Your task to perform on an android device: Go to Google maps Image 0: 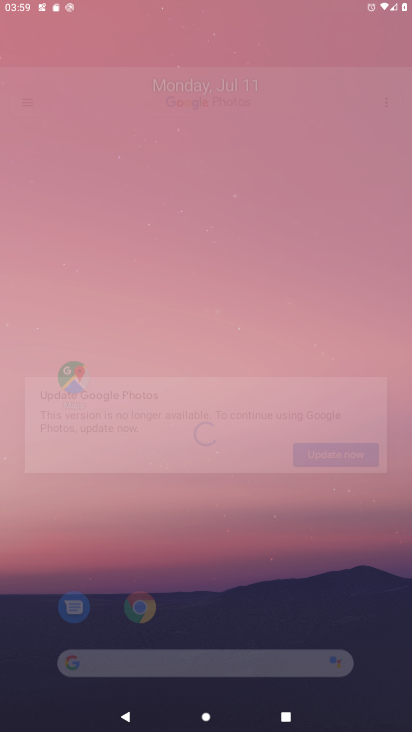
Step 0: click (341, 51)
Your task to perform on an android device: Go to Google maps Image 1: 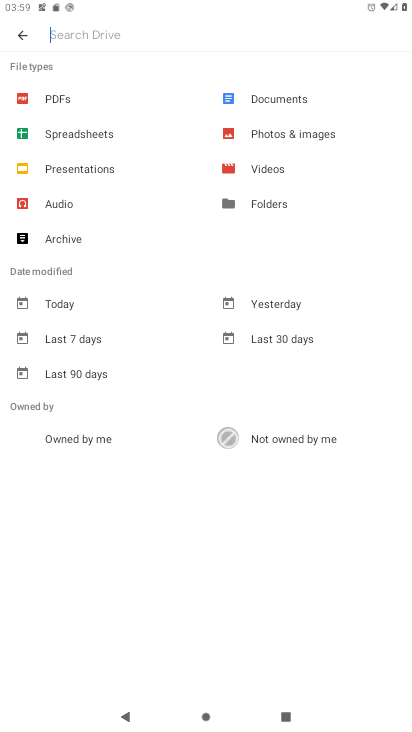
Step 1: press home button
Your task to perform on an android device: Go to Google maps Image 2: 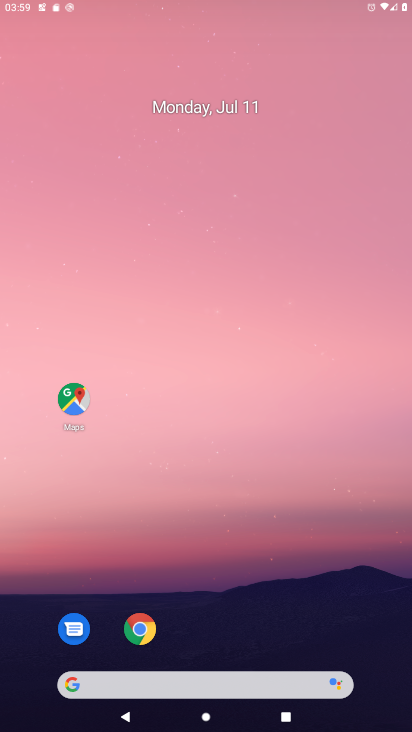
Step 2: drag from (178, 603) to (232, 8)
Your task to perform on an android device: Go to Google maps Image 3: 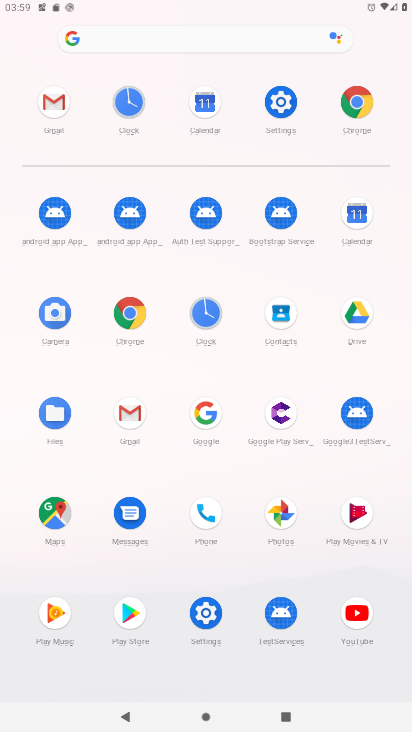
Step 3: click (48, 508)
Your task to perform on an android device: Go to Google maps Image 4: 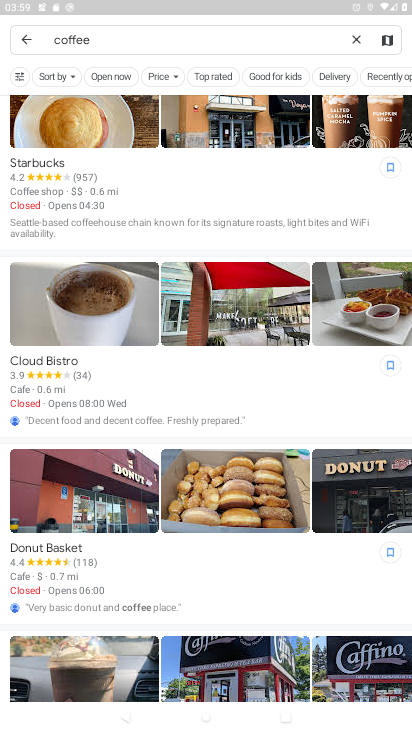
Step 4: task complete